Your task to perform on an android device: Open Chrome and go to settings Image 0: 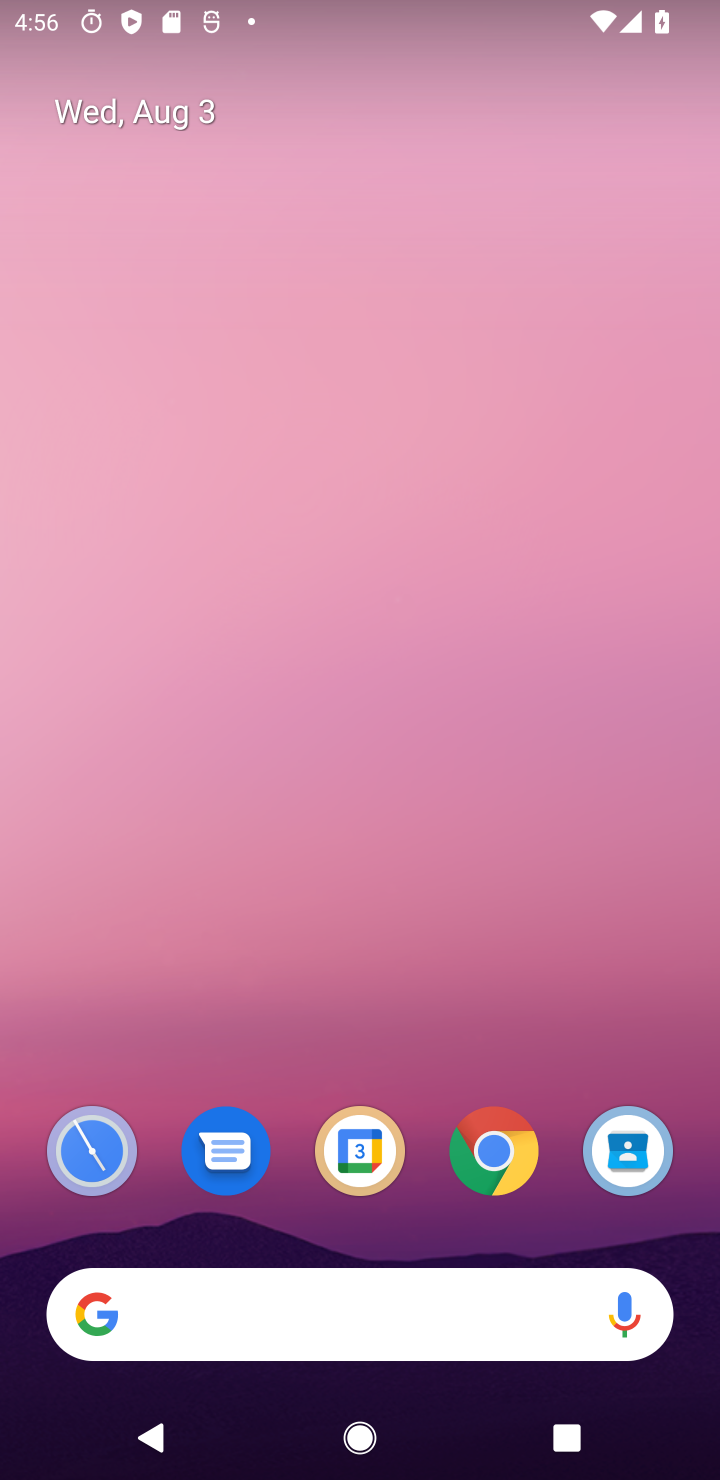
Step 0: drag from (333, 670) to (311, 524)
Your task to perform on an android device: Open Chrome and go to settings Image 1: 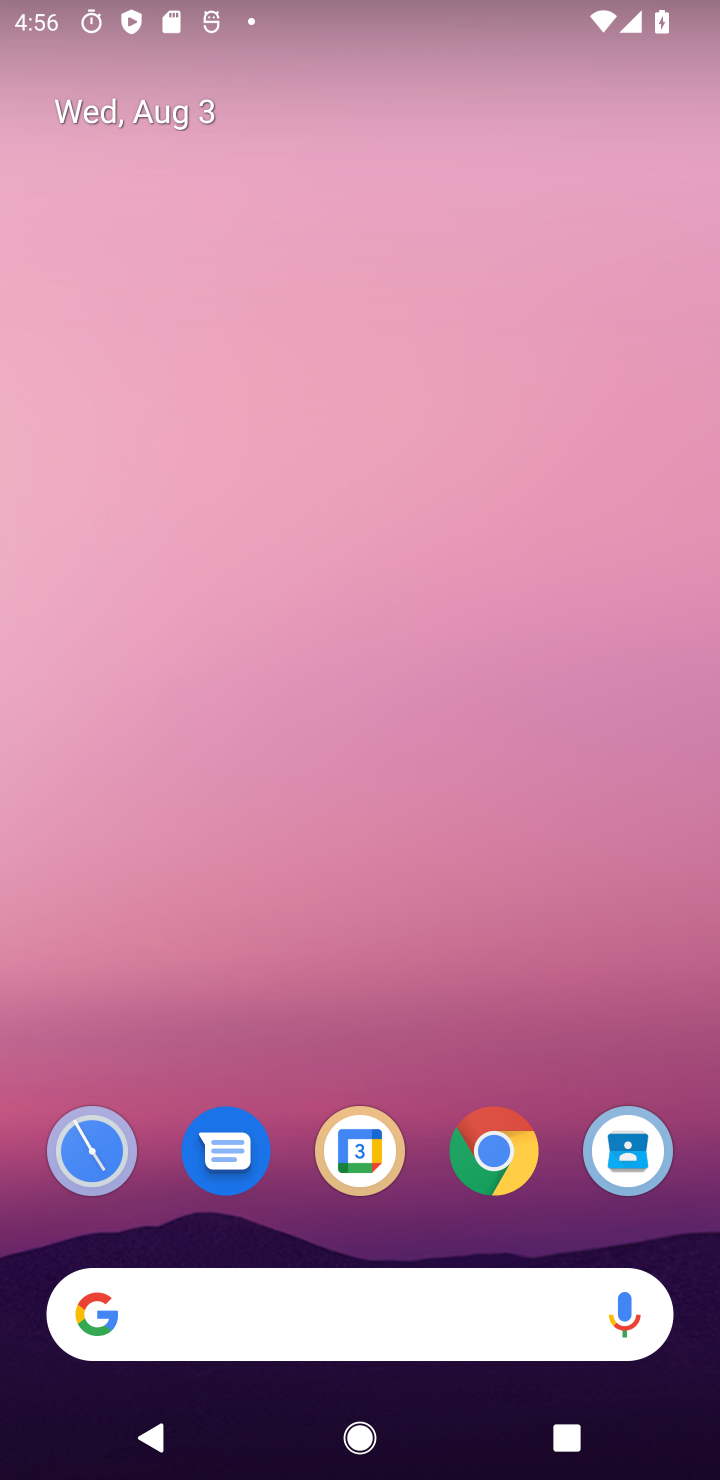
Step 1: drag from (340, 918) to (255, 453)
Your task to perform on an android device: Open Chrome and go to settings Image 2: 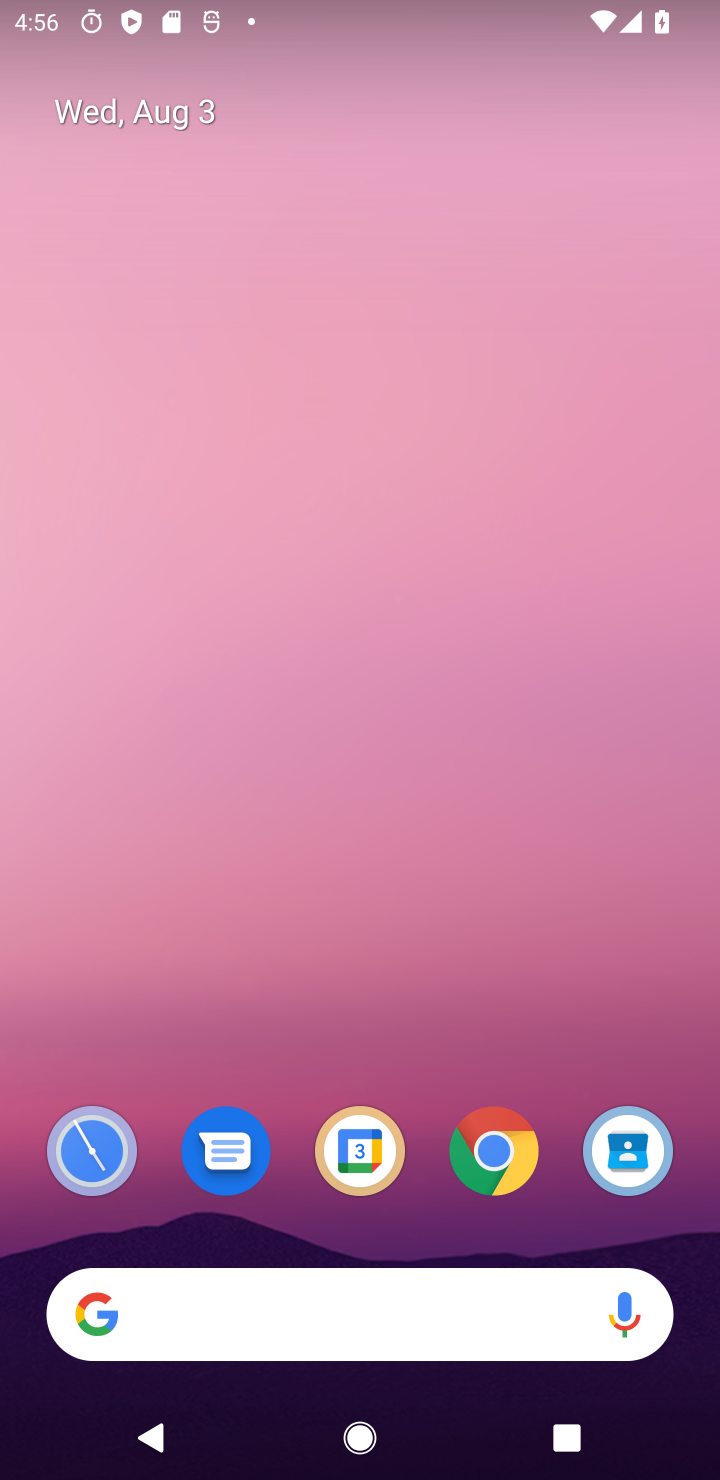
Step 2: drag from (311, 815) to (208, 424)
Your task to perform on an android device: Open Chrome and go to settings Image 3: 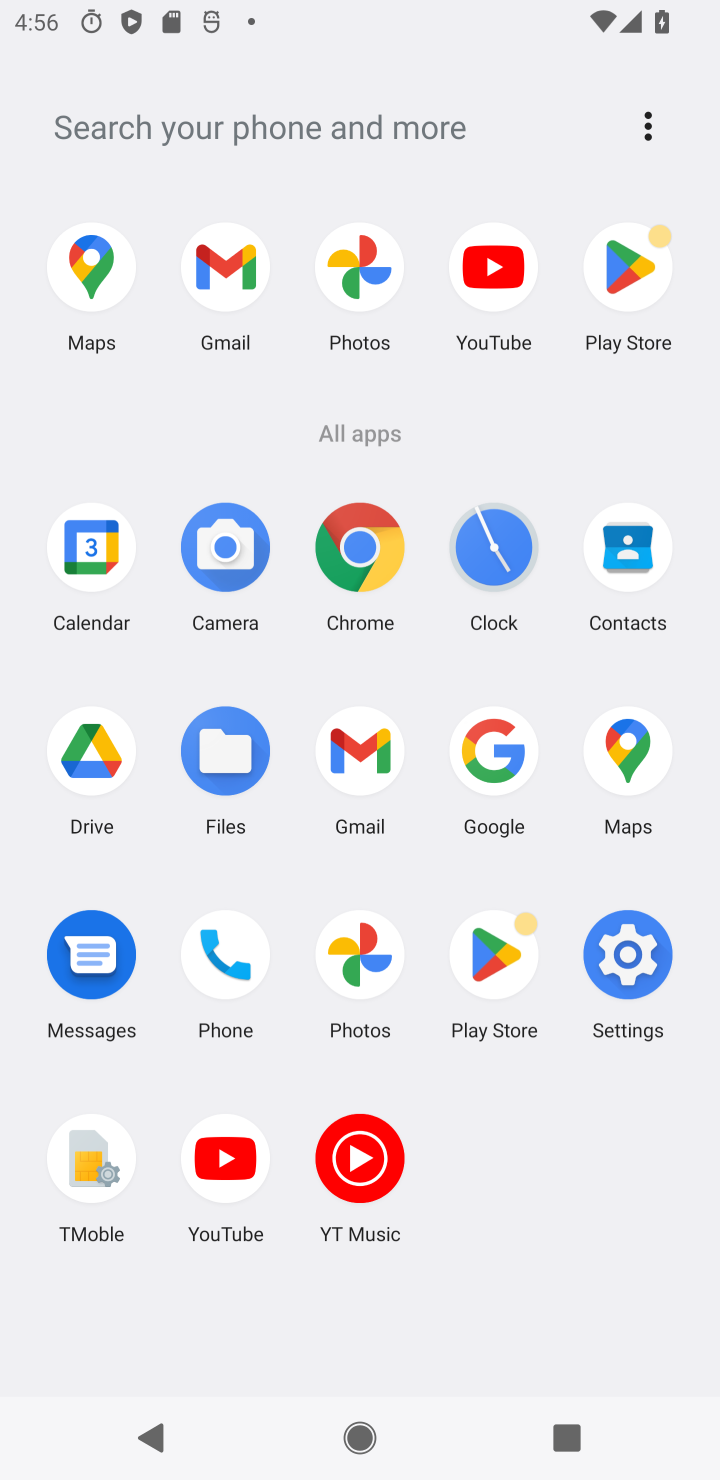
Step 3: drag from (440, 1054) to (312, 315)
Your task to perform on an android device: Open Chrome and go to settings Image 4: 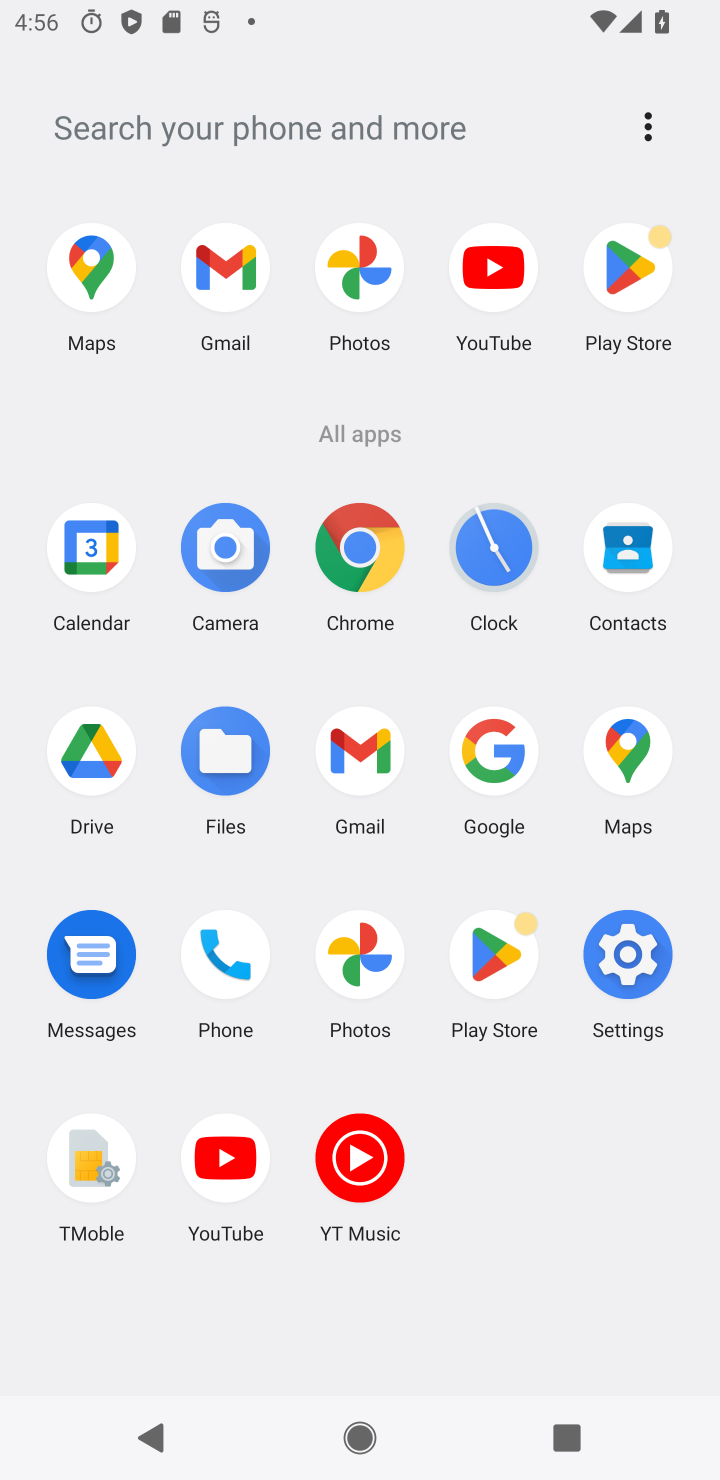
Step 4: click (614, 947)
Your task to perform on an android device: Open Chrome and go to settings Image 5: 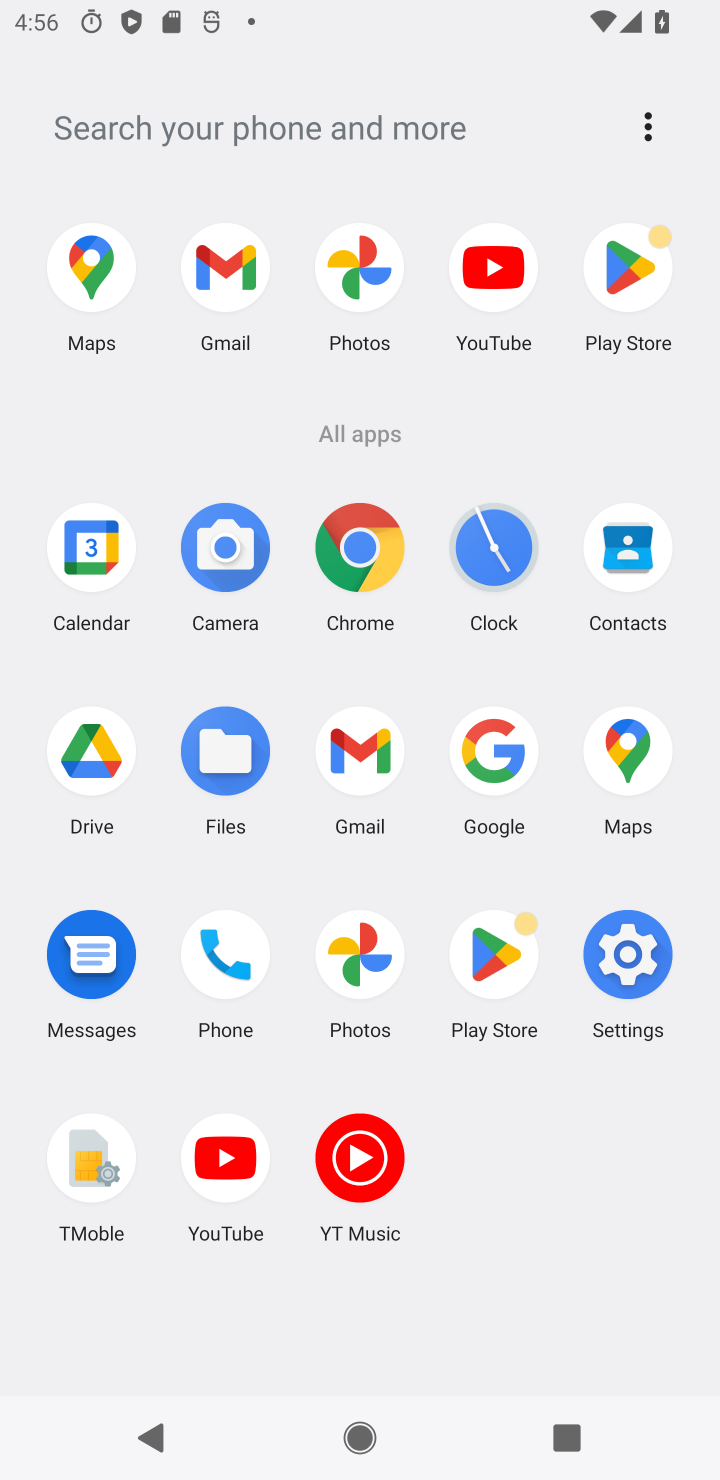
Step 5: click (614, 947)
Your task to perform on an android device: Open Chrome and go to settings Image 6: 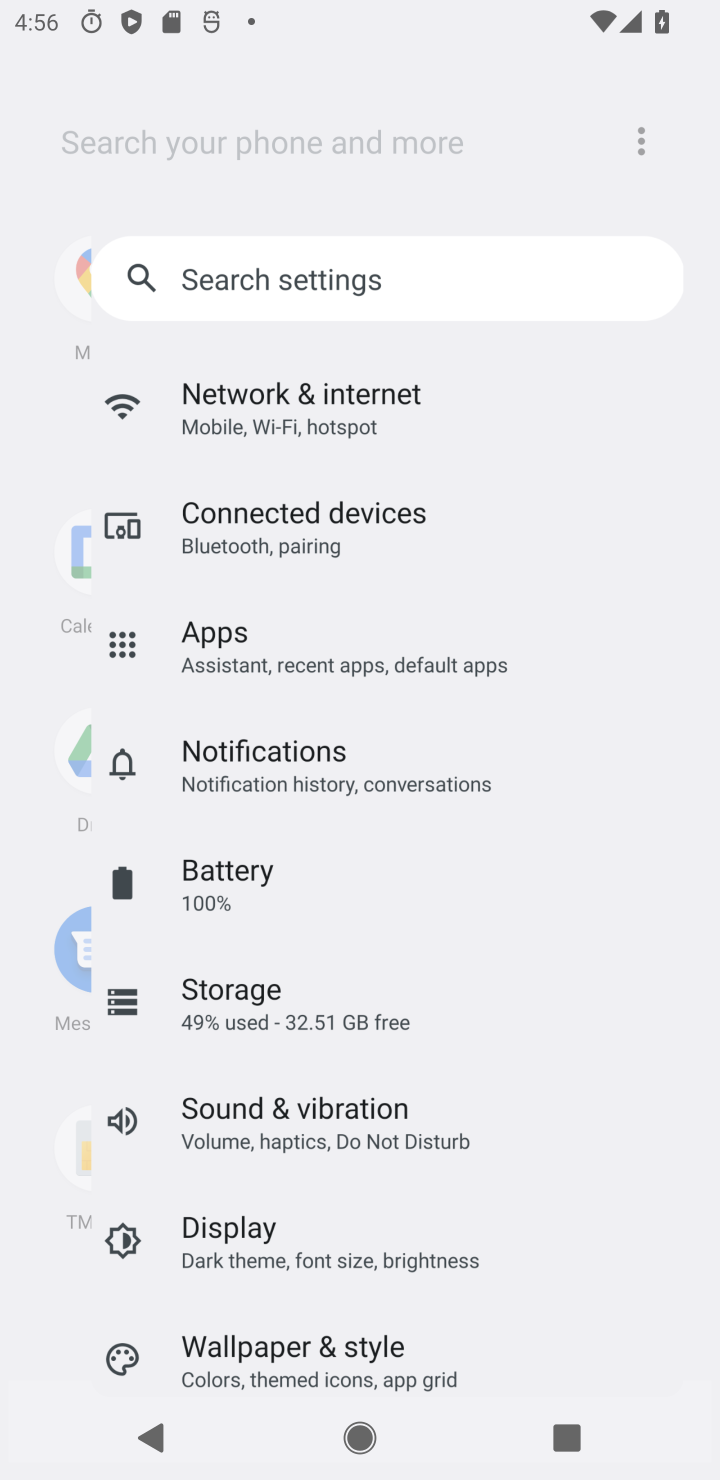
Step 6: click (618, 942)
Your task to perform on an android device: Open Chrome and go to settings Image 7: 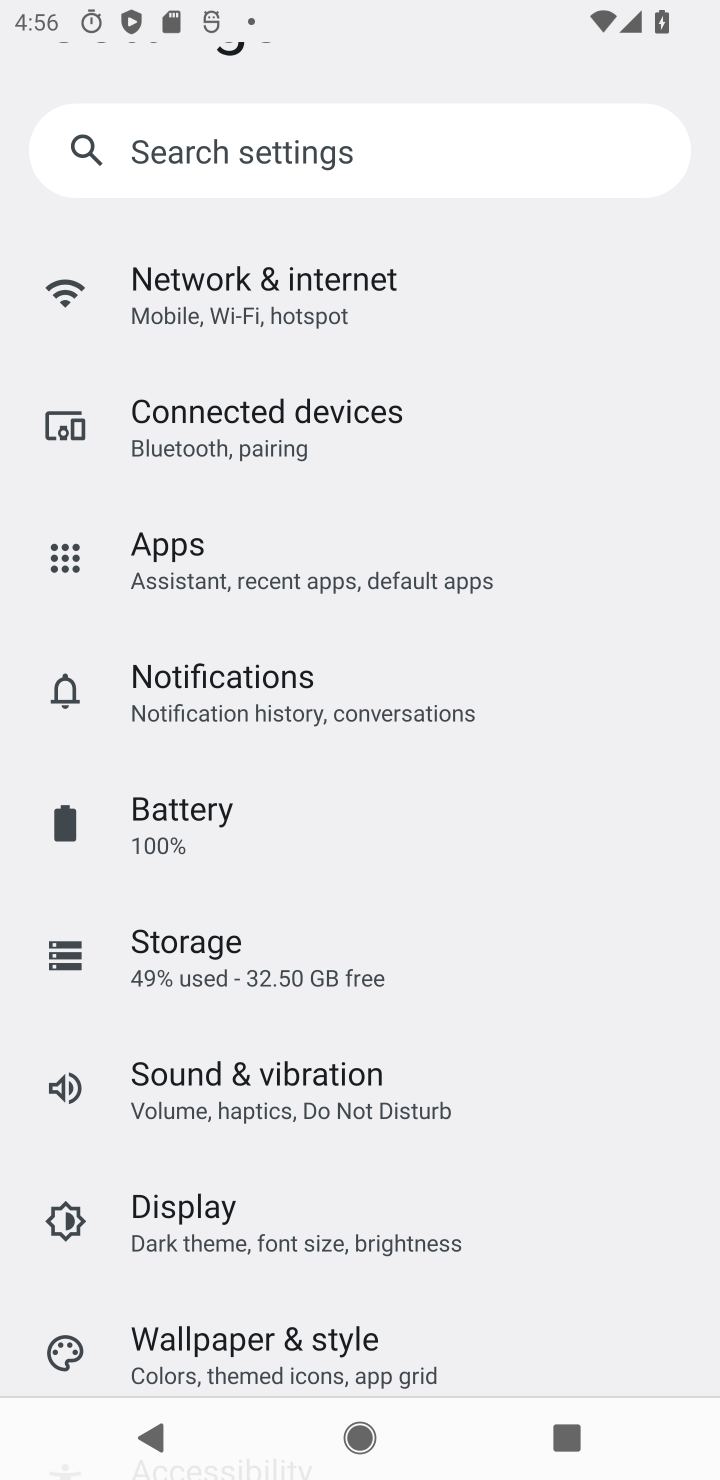
Step 7: click (621, 942)
Your task to perform on an android device: Open Chrome and go to settings Image 8: 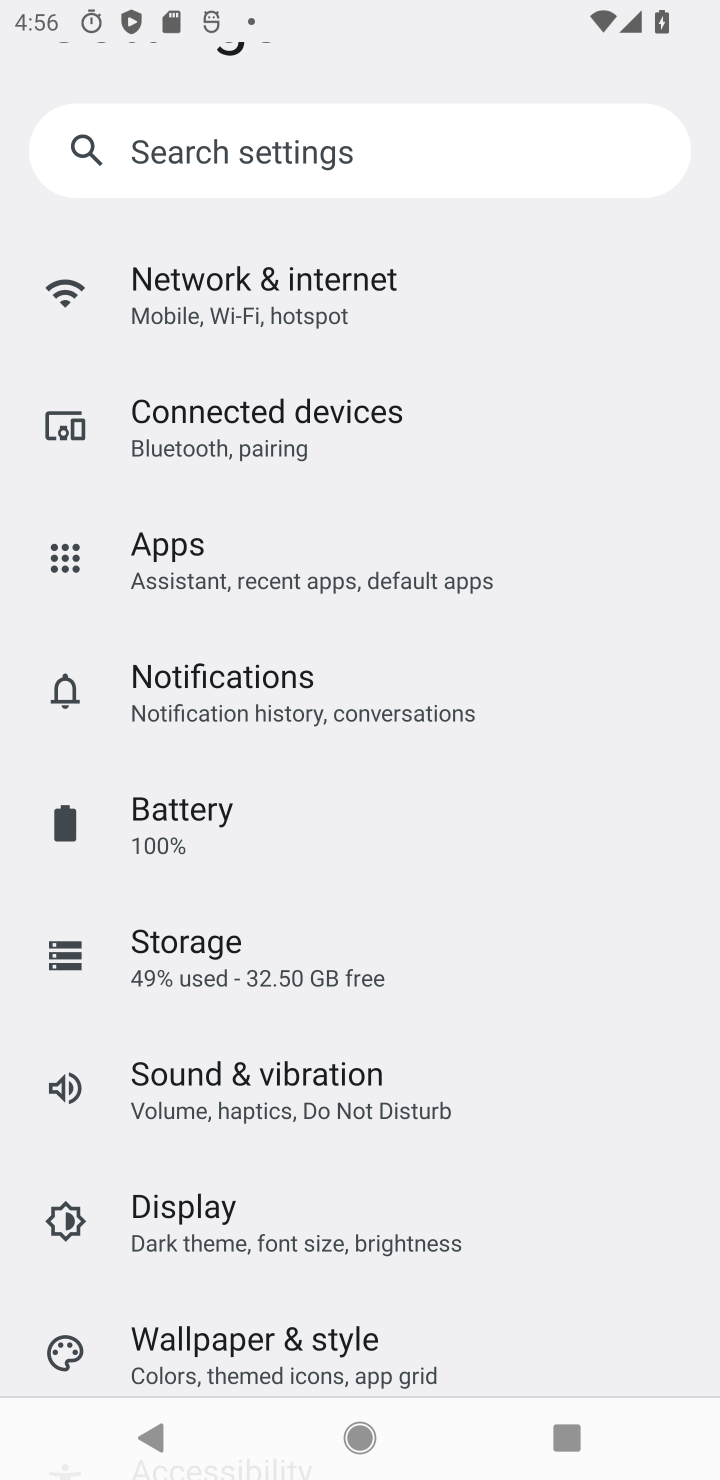
Step 8: click (178, 150)
Your task to perform on an android device: Open Chrome and go to settings Image 9: 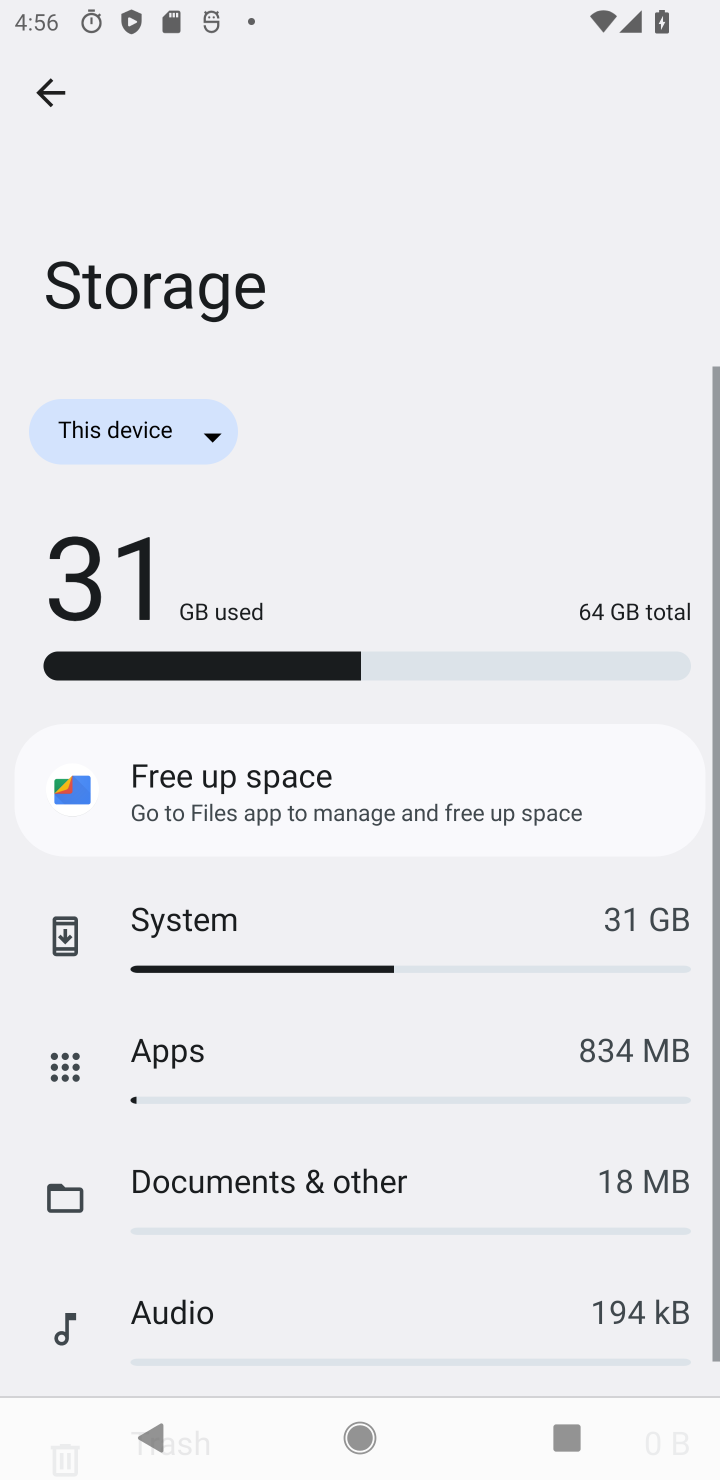
Step 9: click (55, 95)
Your task to perform on an android device: Open Chrome and go to settings Image 10: 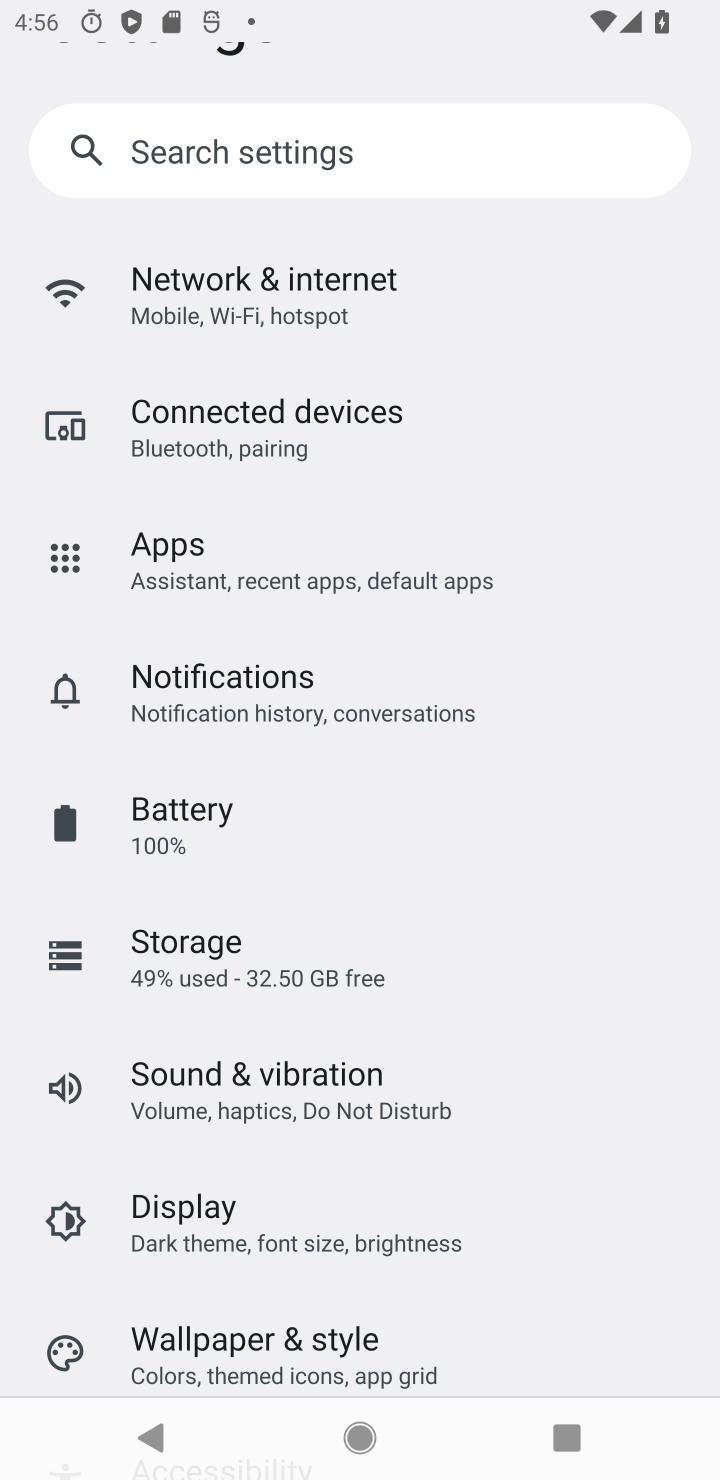
Step 10: click (172, 157)
Your task to perform on an android device: Open Chrome and go to settings Image 11: 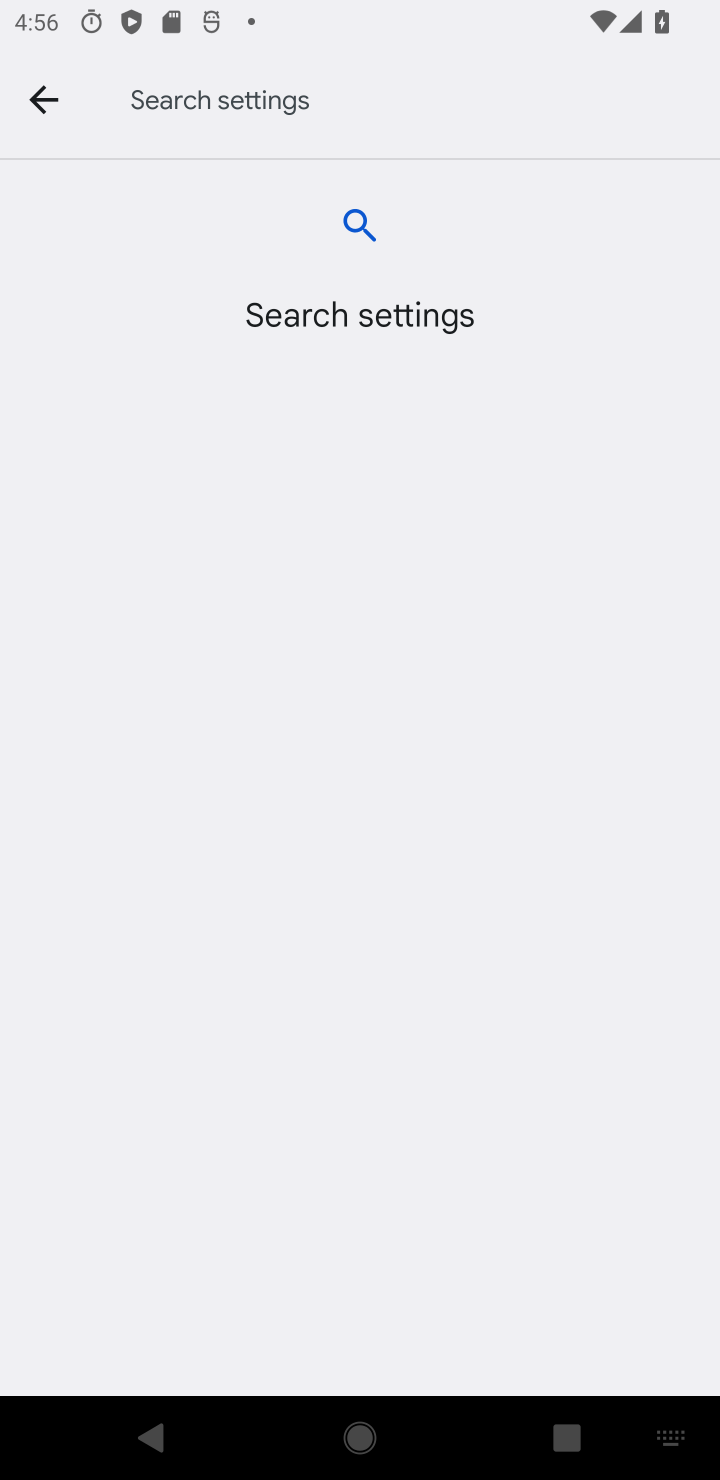
Step 11: click (27, 84)
Your task to perform on an android device: Open Chrome and go to settings Image 12: 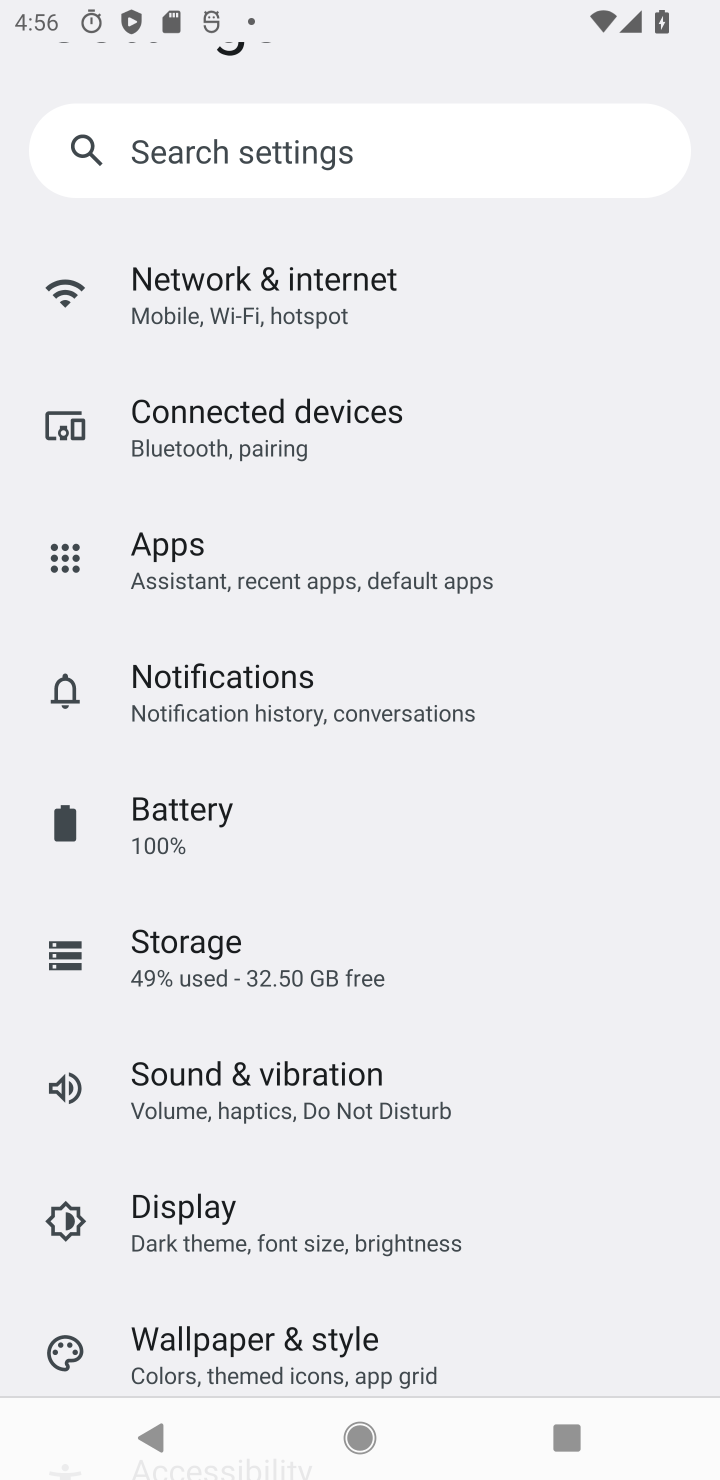
Step 12: press back button
Your task to perform on an android device: Open Chrome and go to settings Image 13: 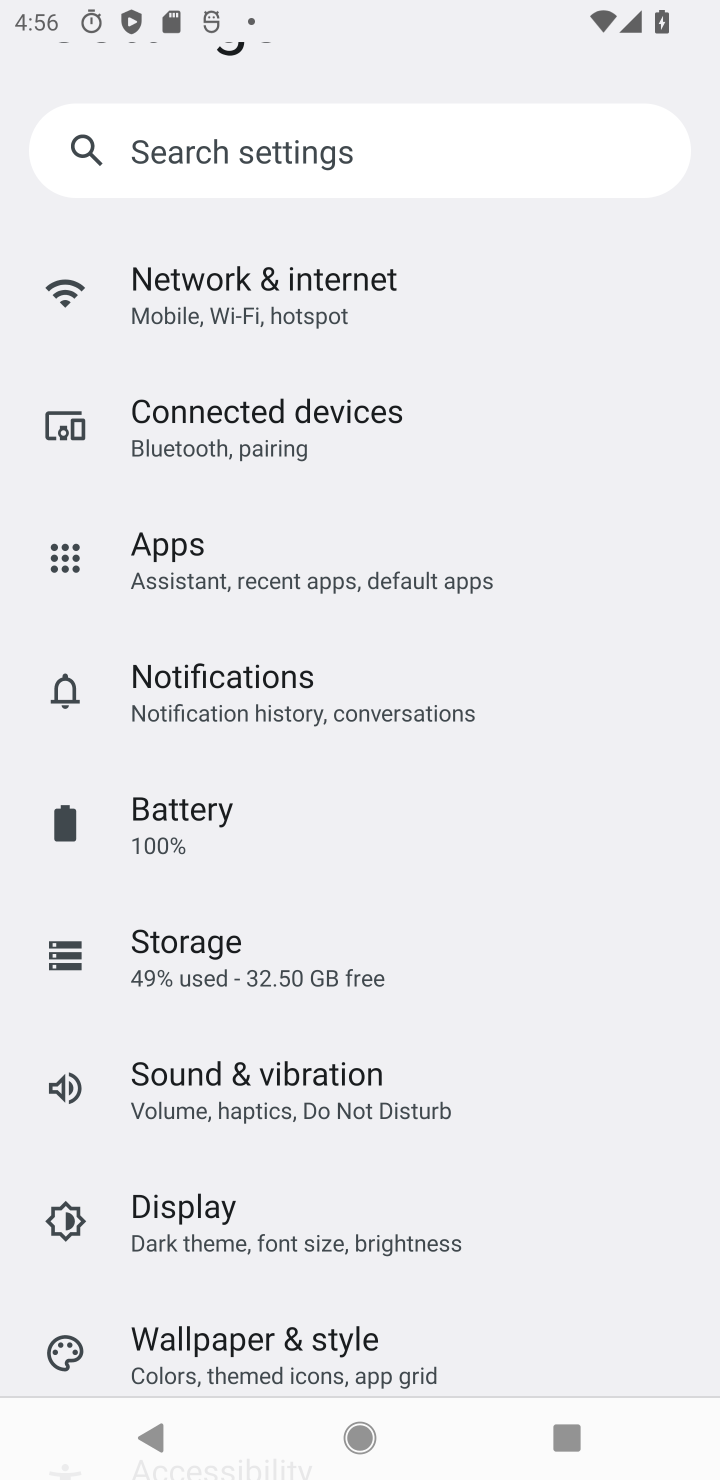
Step 13: press back button
Your task to perform on an android device: Open Chrome and go to settings Image 14: 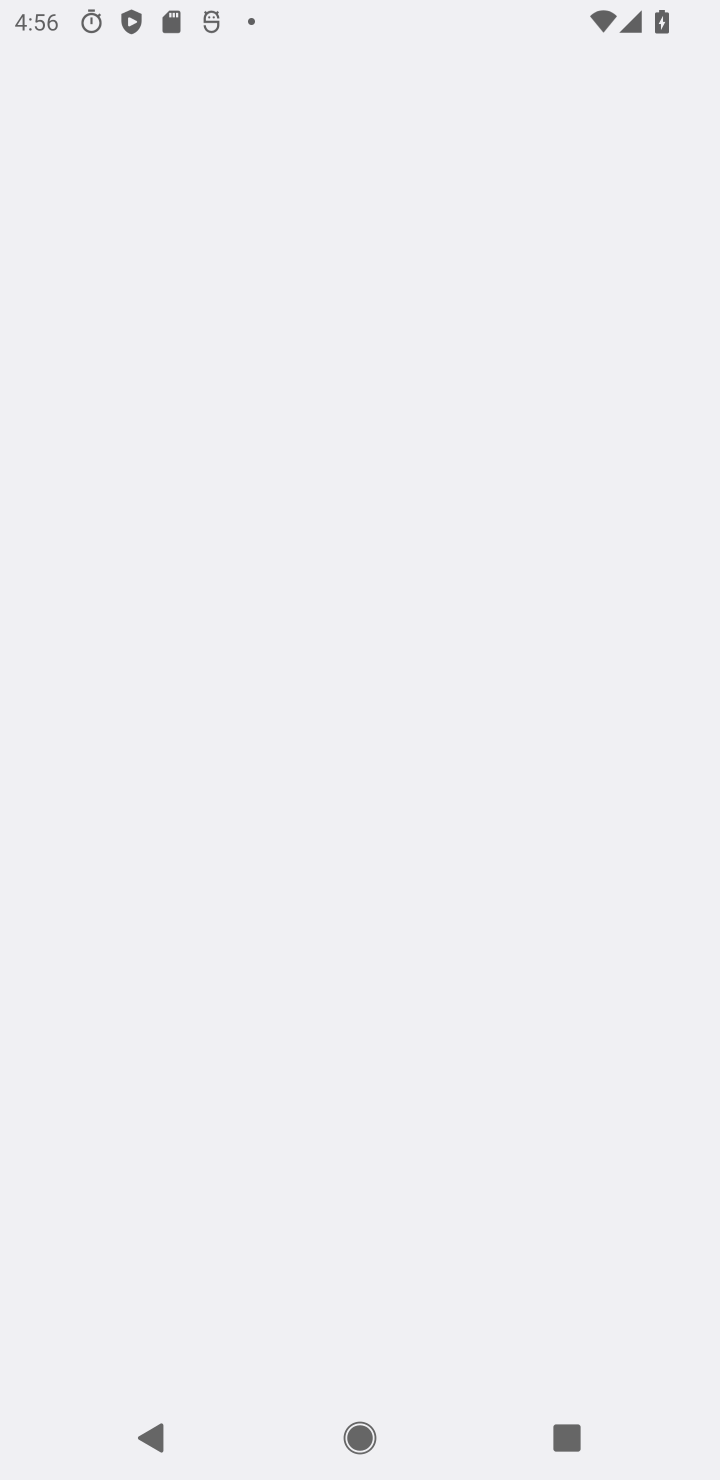
Step 14: press back button
Your task to perform on an android device: Open Chrome and go to settings Image 15: 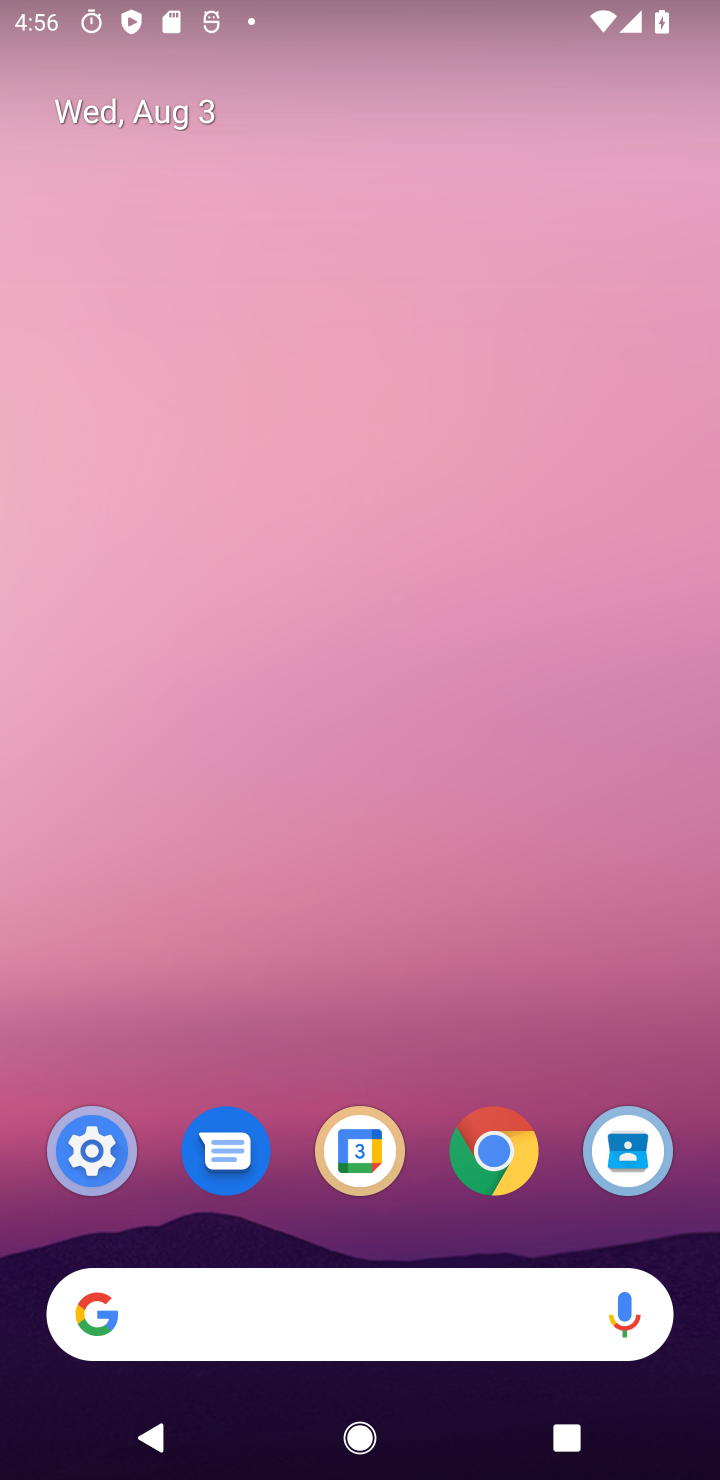
Step 15: drag from (372, 1241) to (262, 300)
Your task to perform on an android device: Open Chrome and go to settings Image 16: 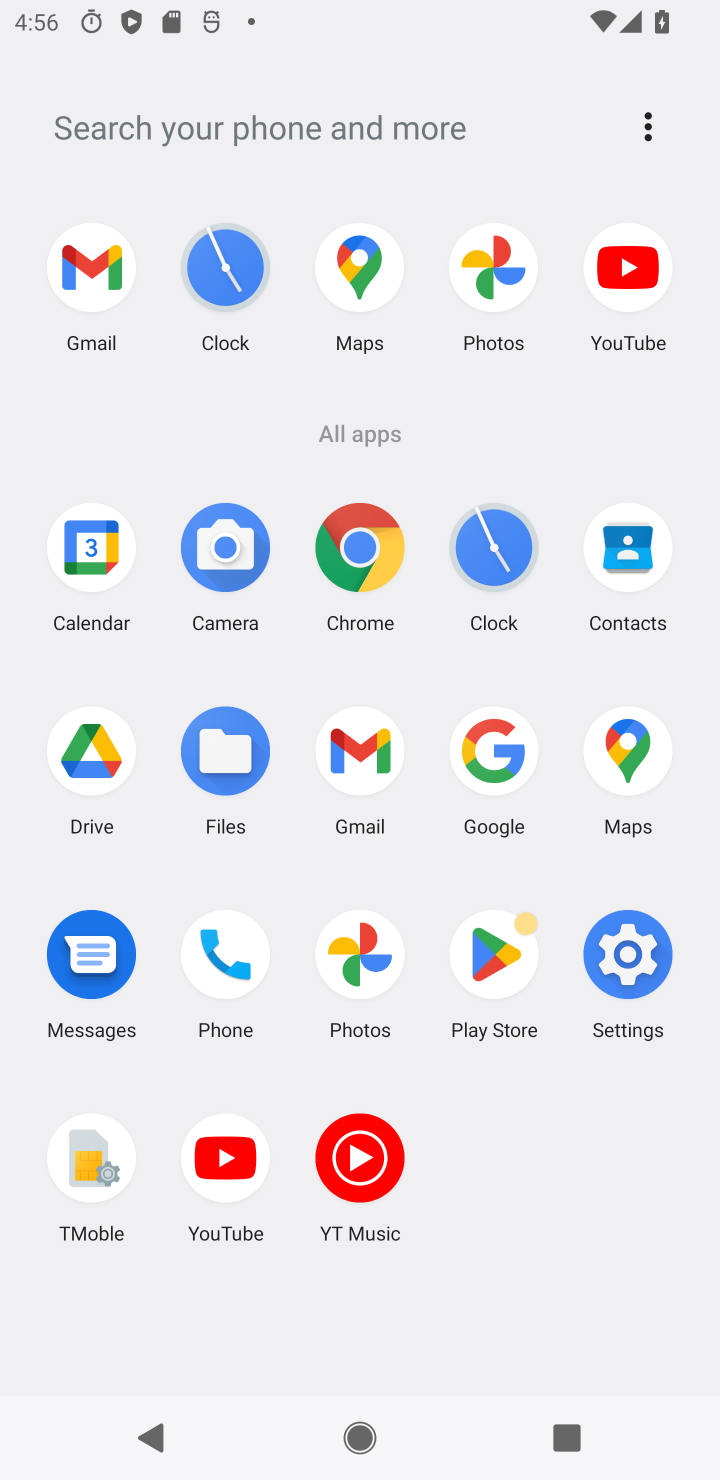
Step 16: click (367, 578)
Your task to perform on an android device: Open Chrome and go to settings Image 17: 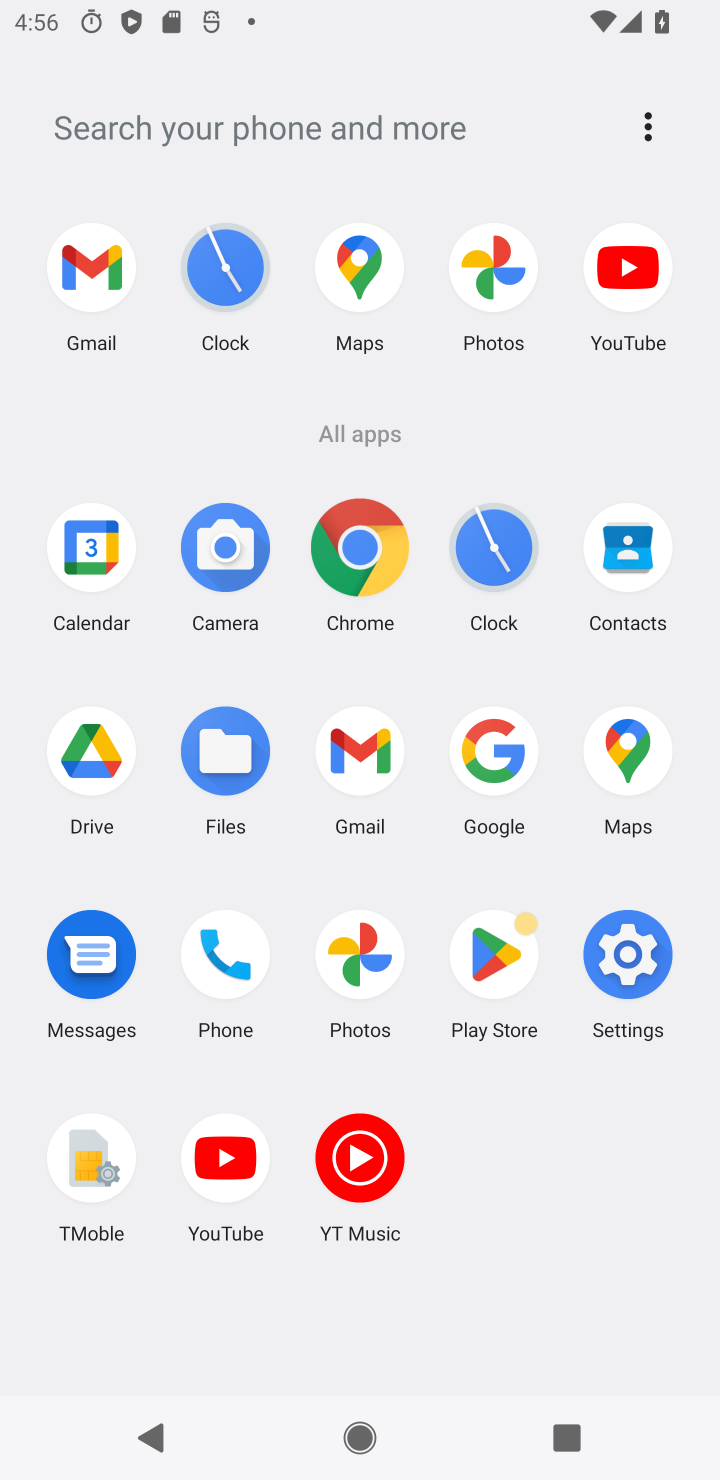
Step 17: click (358, 571)
Your task to perform on an android device: Open Chrome and go to settings Image 18: 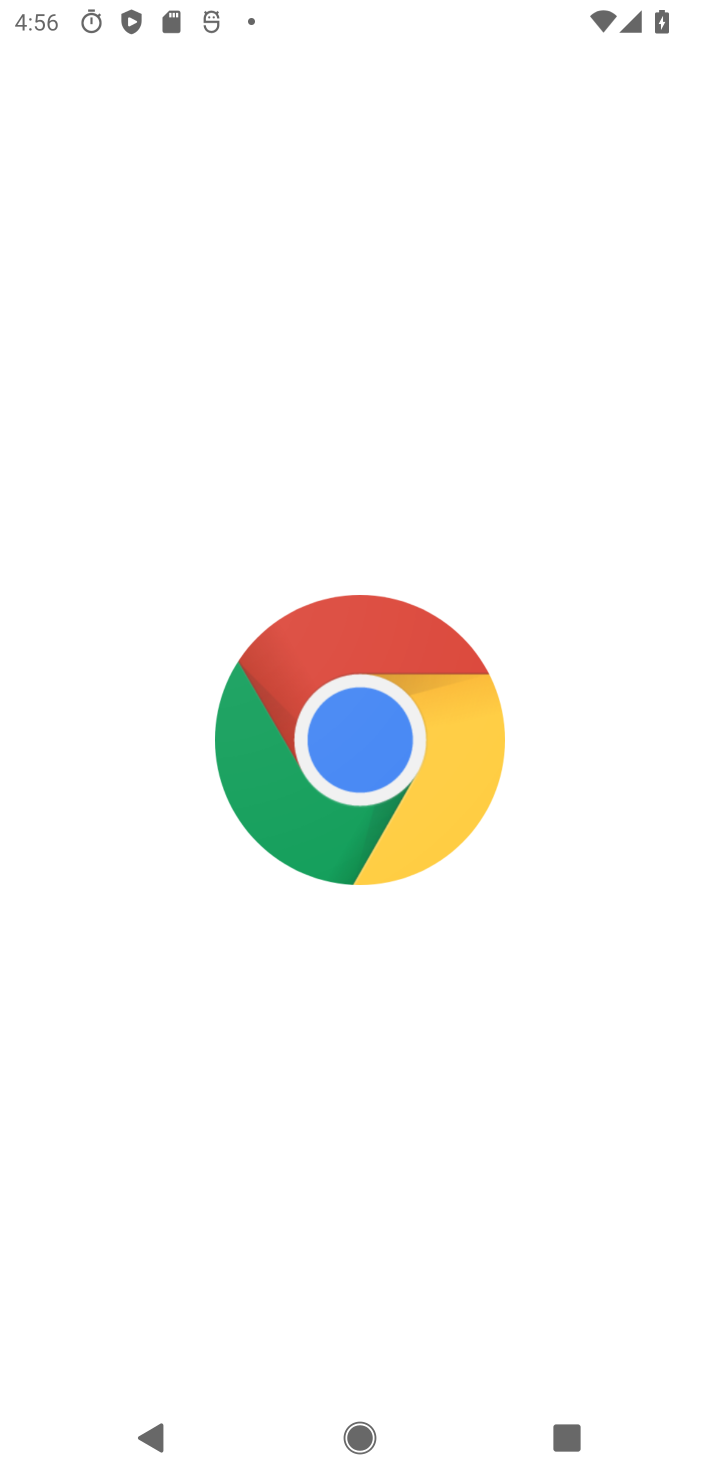
Step 18: click (358, 543)
Your task to perform on an android device: Open Chrome and go to settings Image 19: 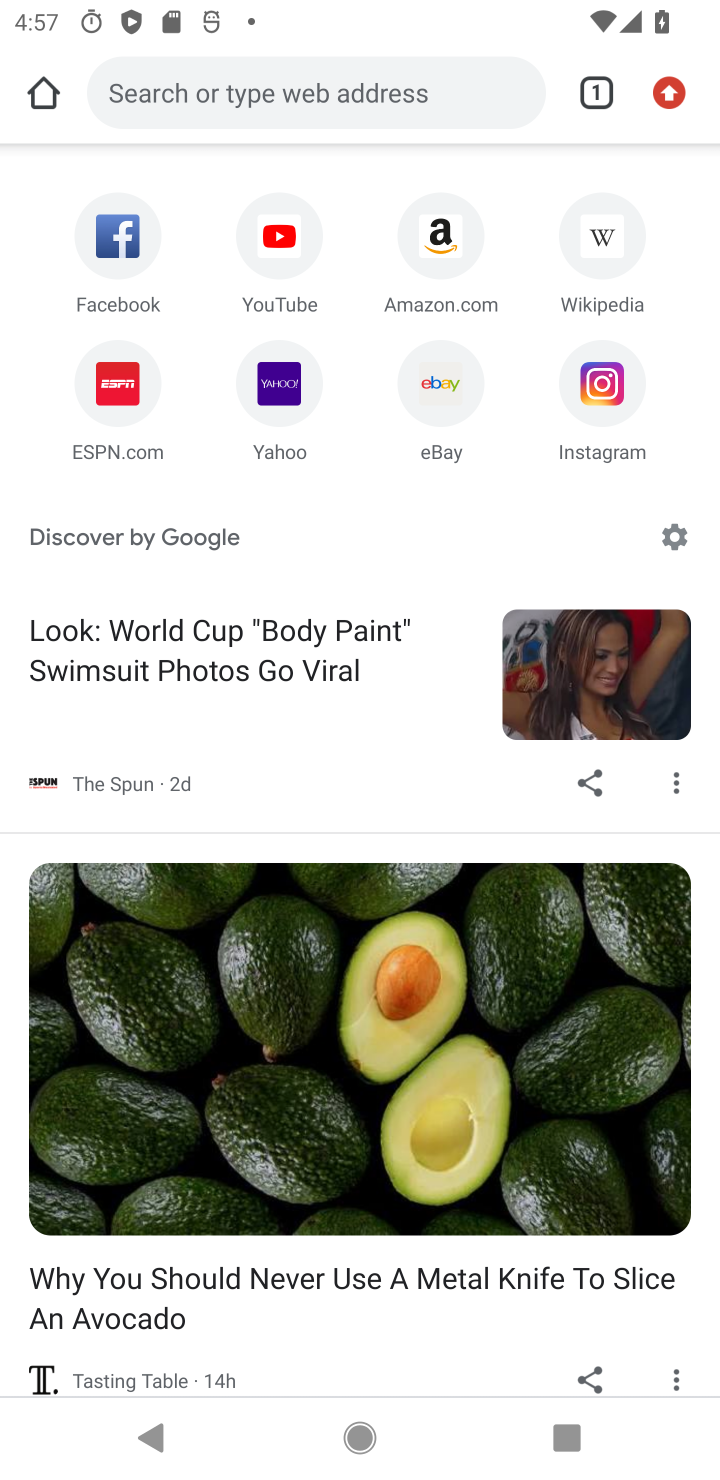
Step 19: drag from (671, 95) to (701, 934)
Your task to perform on an android device: Open Chrome and go to settings Image 20: 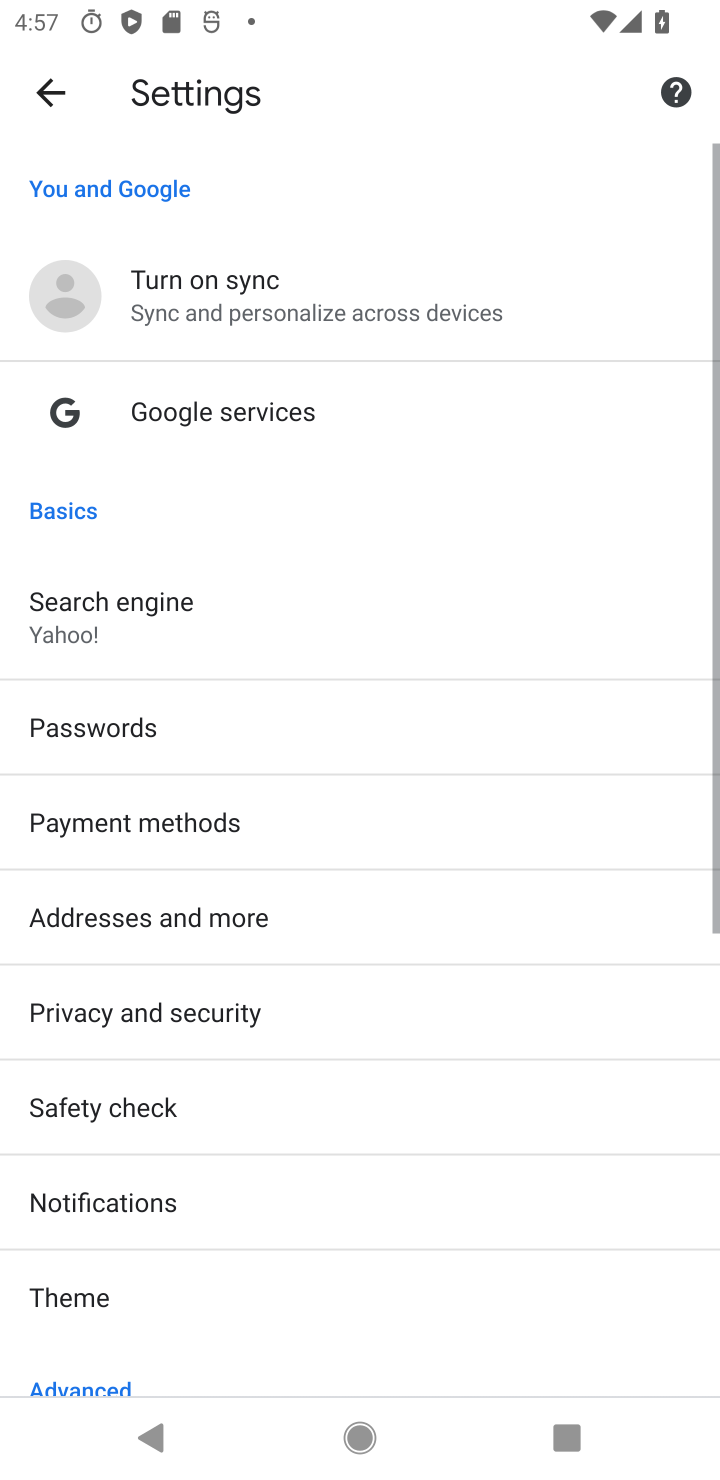
Step 20: click (649, 100)
Your task to perform on an android device: Open Chrome and go to settings Image 21: 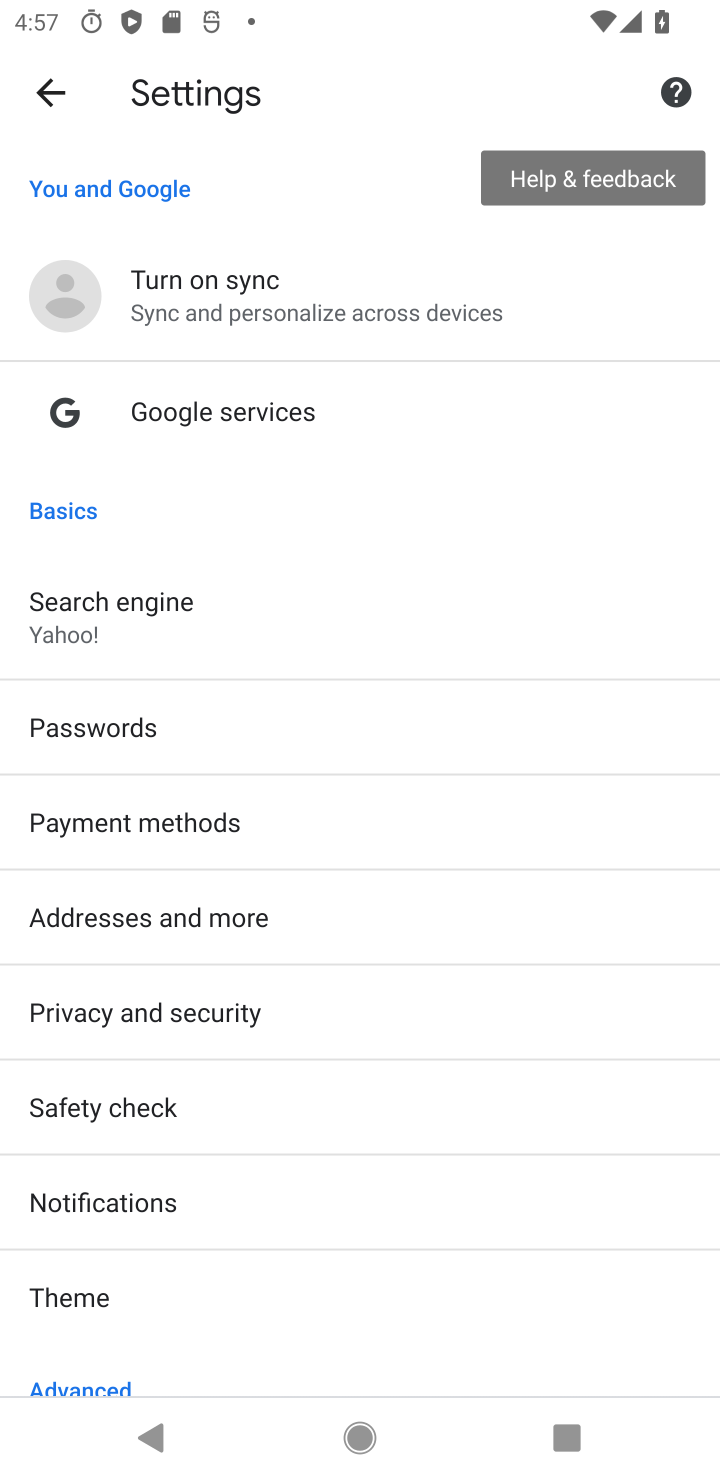
Step 21: task complete